Your task to perform on an android device: Search for logitech g pro on costco.com, select the first entry, and add it to the cart. Image 0: 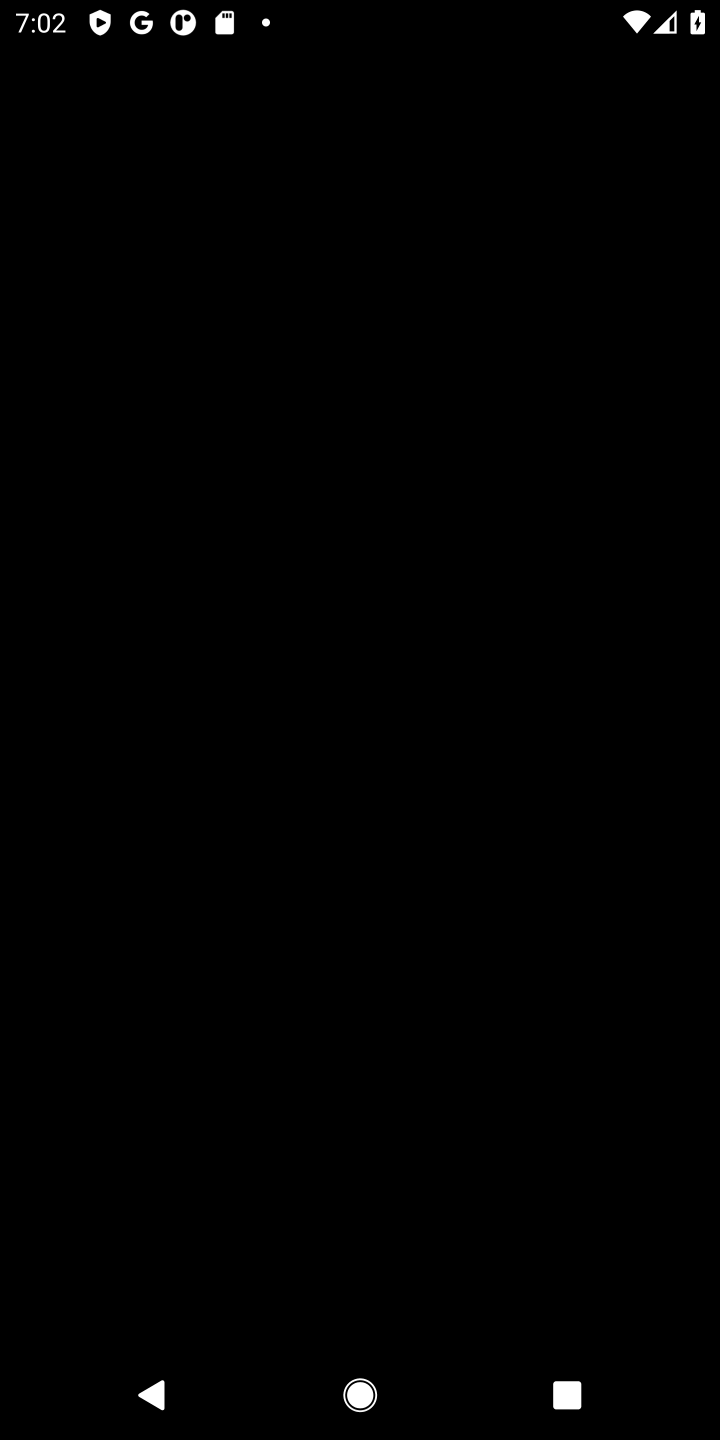
Step 0: press home button
Your task to perform on an android device: Search for logitech g pro on costco.com, select the first entry, and add it to the cart. Image 1: 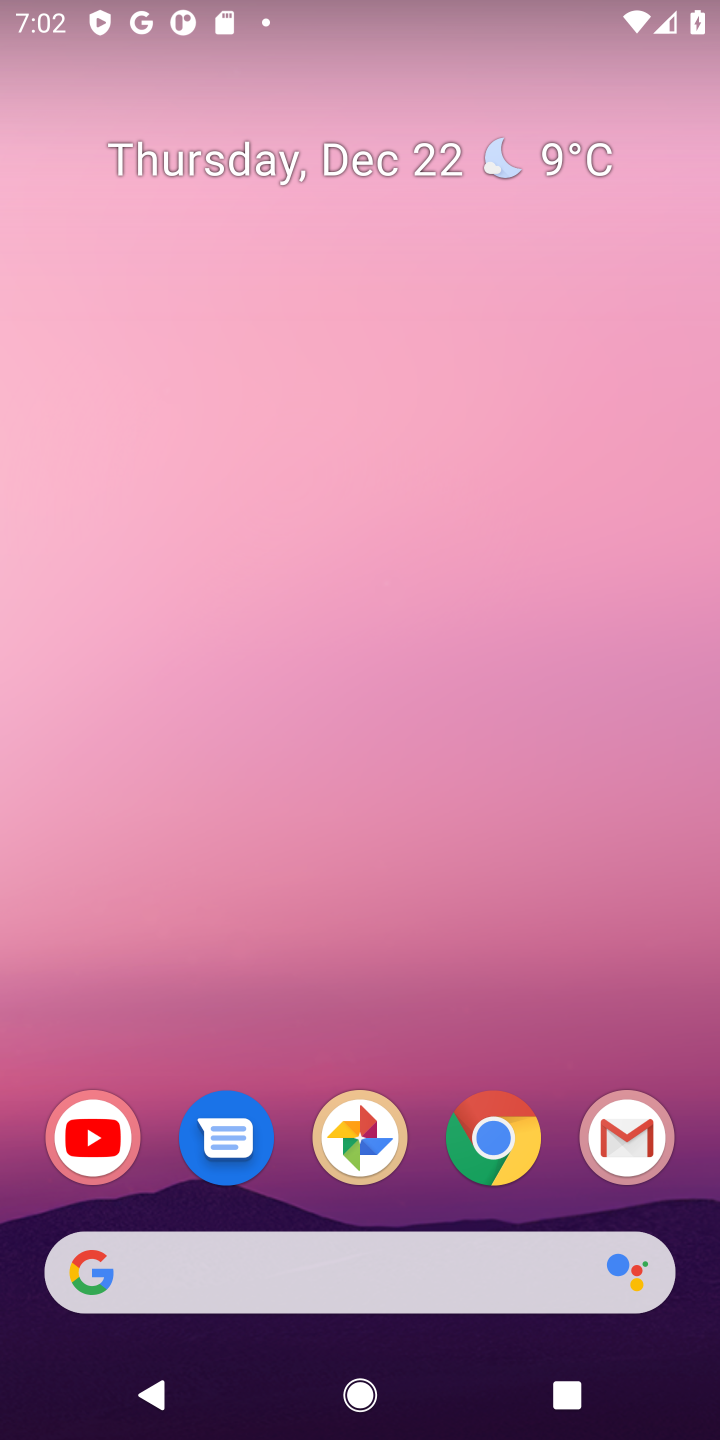
Step 1: click (495, 1134)
Your task to perform on an android device: Search for logitech g pro on costco.com, select the first entry, and add it to the cart. Image 2: 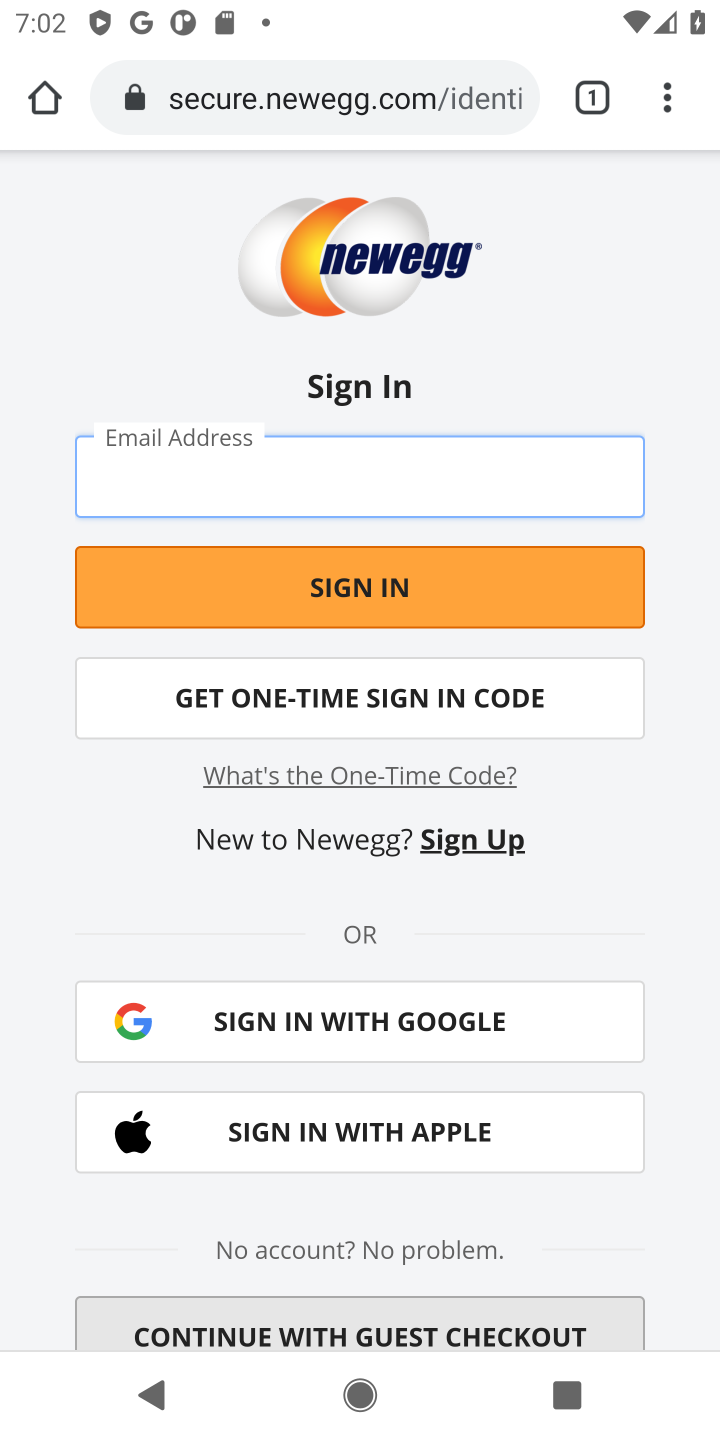
Step 2: click (423, 80)
Your task to perform on an android device: Search for logitech g pro on costco.com, select the first entry, and add it to the cart. Image 3: 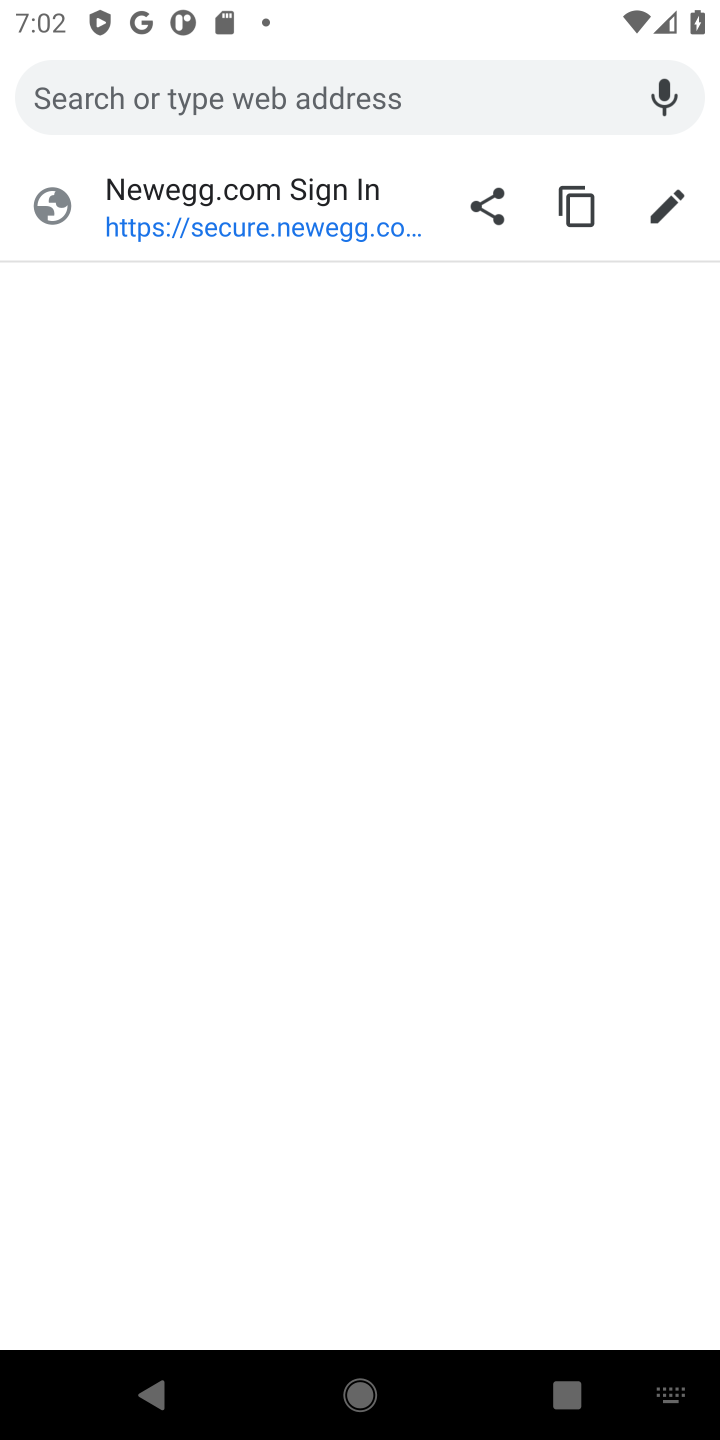
Step 3: press enter
Your task to perform on an android device: Search for logitech g pro on costco.com, select the first entry, and add it to the cart. Image 4: 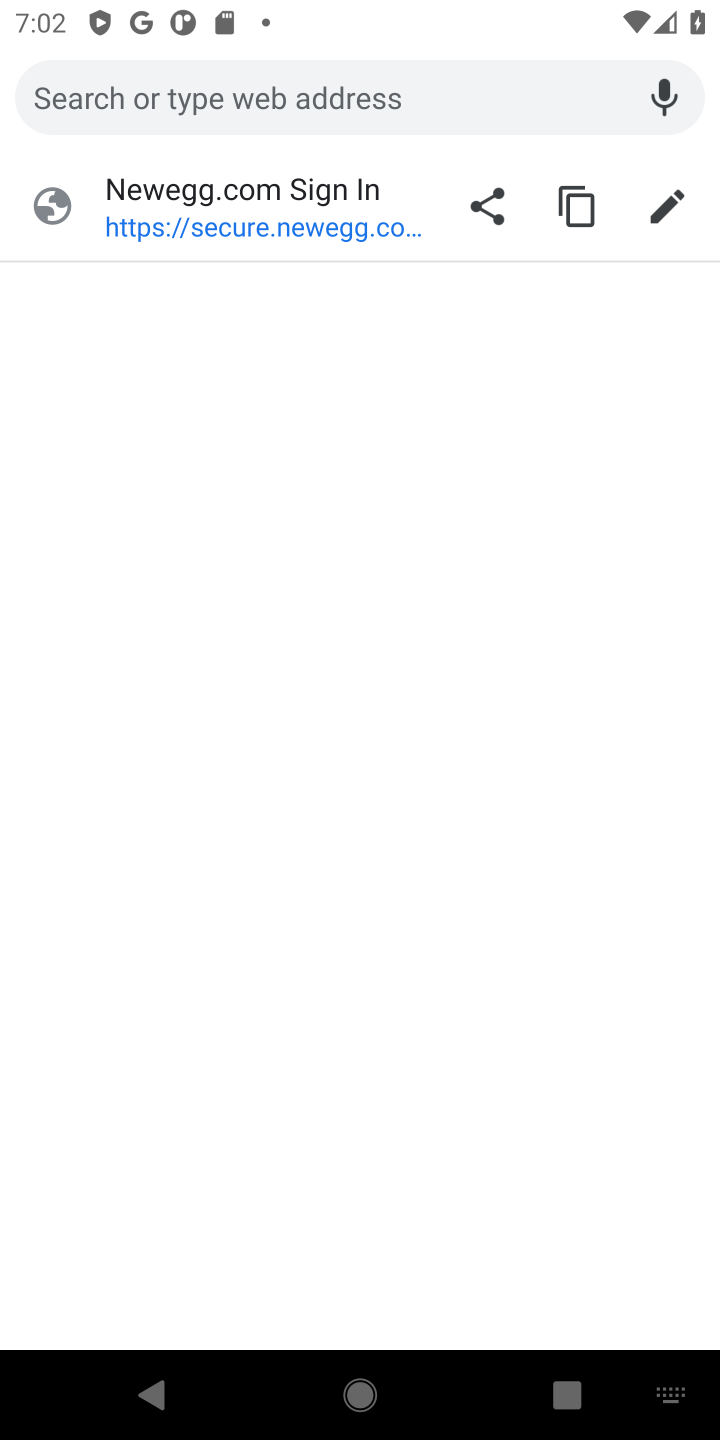
Step 4: type "costco.com"
Your task to perform on an android device: Search for logitech g pro on costco.com, select the first entry, and add it to the cart. Image 5: 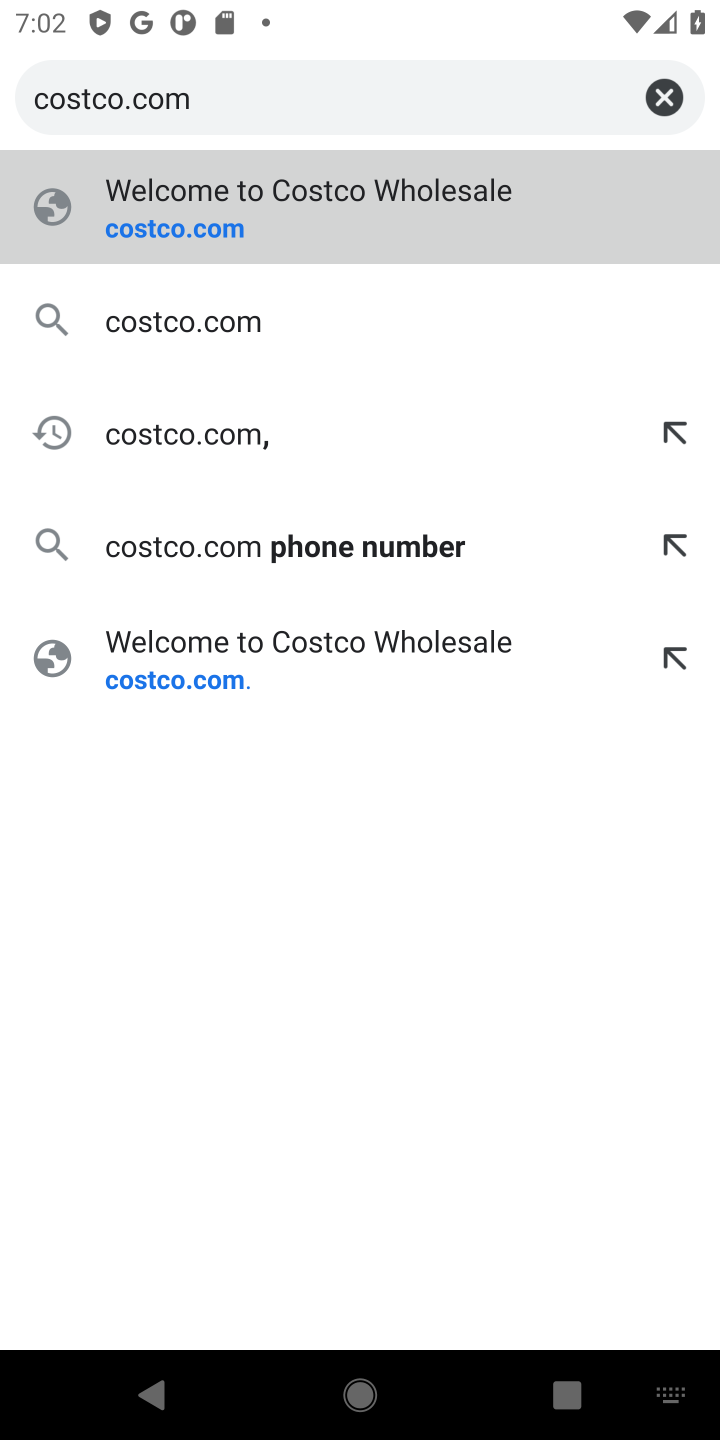
Step 5: click (232, 319)
Your task to perform on an android device: Search for logitech g pro on costco.com, select the first entry, and add it to the cart. Image 6: 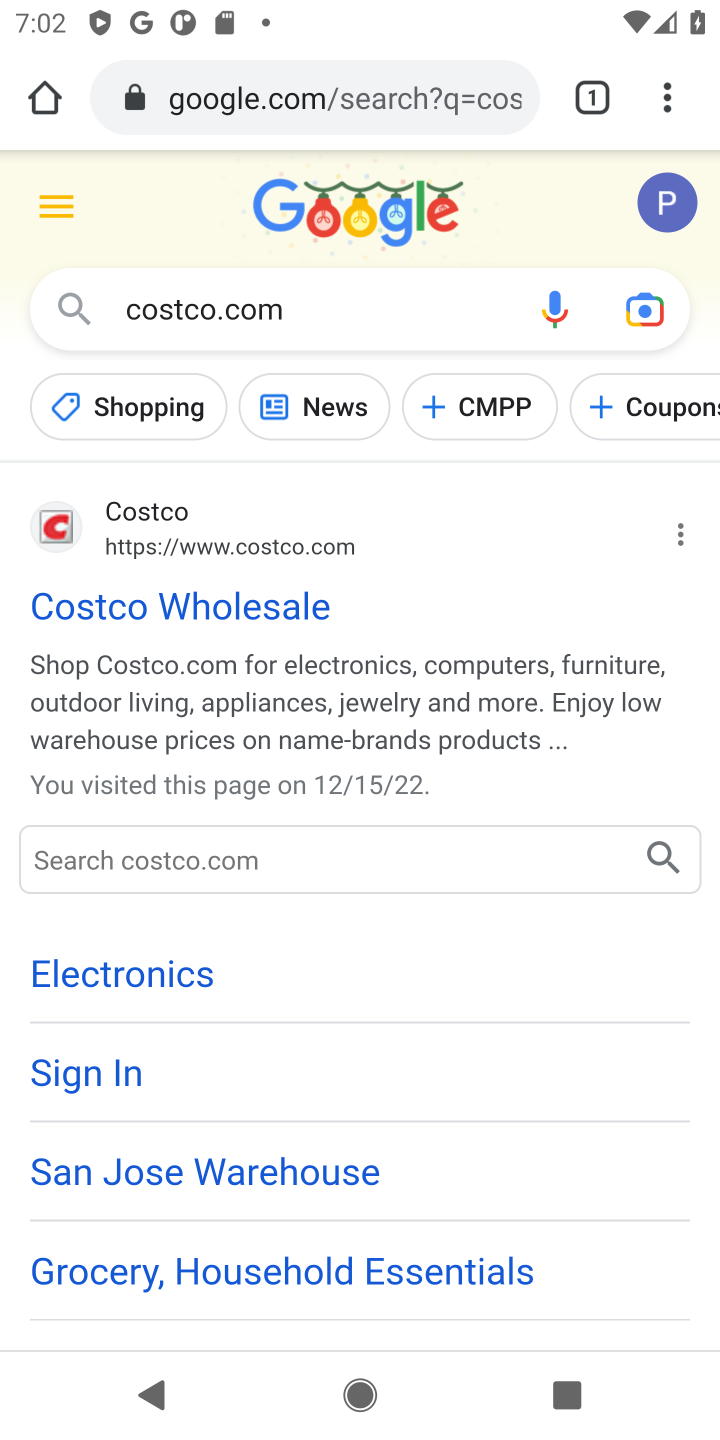
Step 6: click (297, 552)
Your task to perform on an android device: Search for logitech g pro on costco.com, select the first entry, and add it to the cart. Image 7: 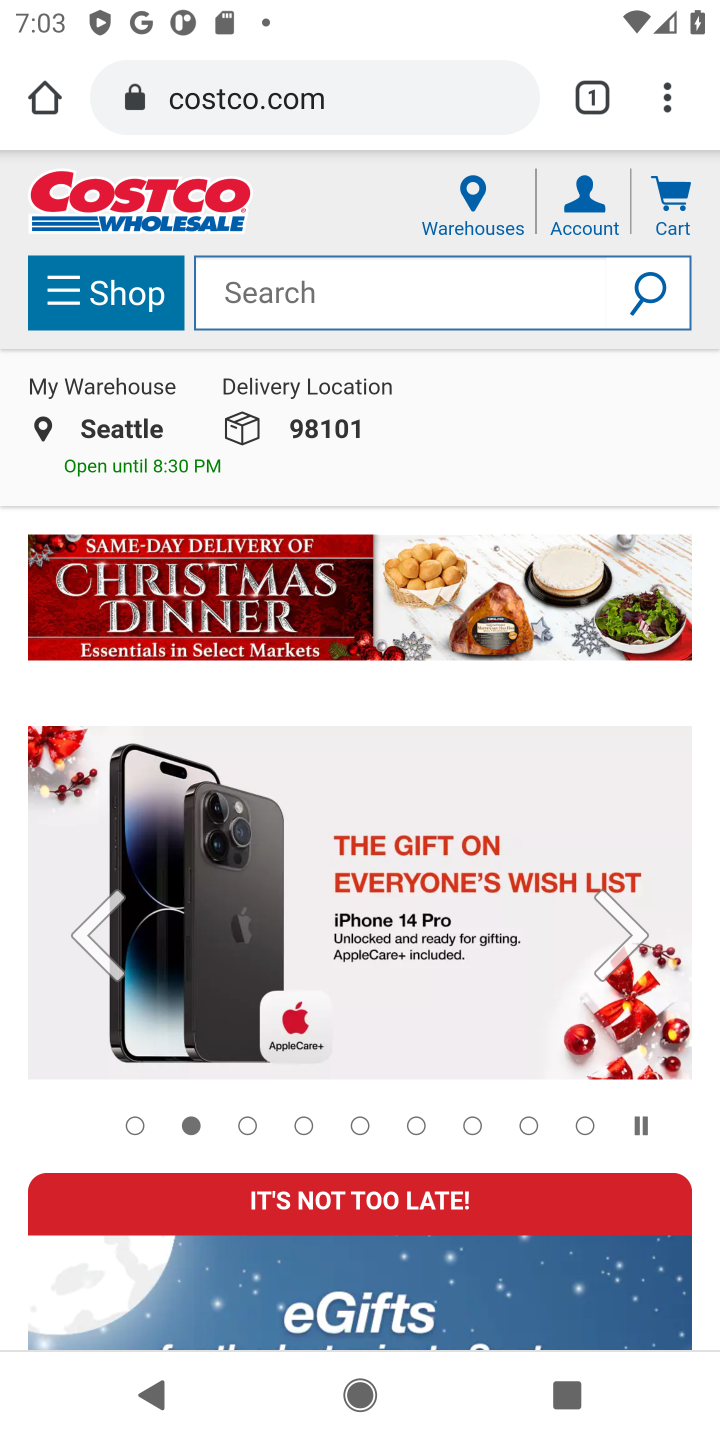
Step 7: click (524, 288)
Your task to perform on an android device: Search for logitech g pro on costco.com, select the first entry, and add it to the cart. Image 8: 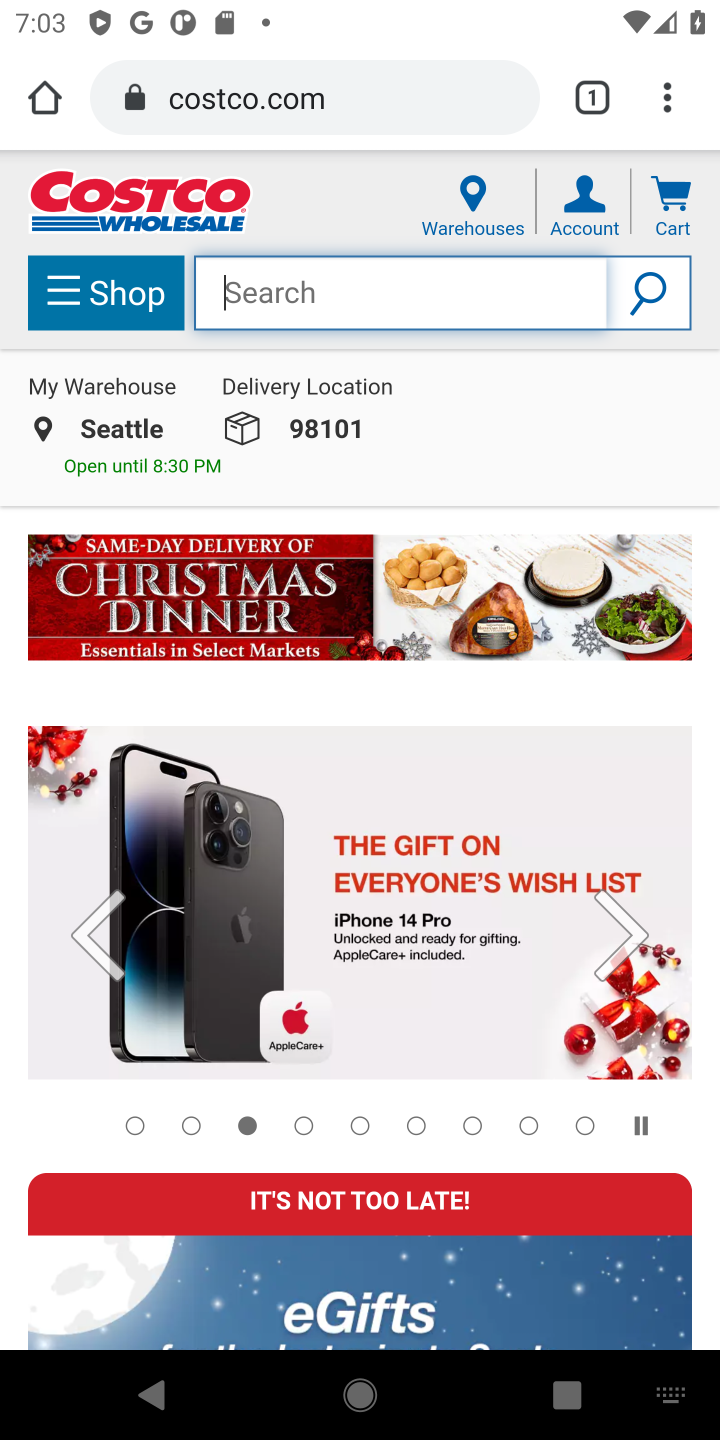
Step 8: type "logitech g pro"
Your task to perform on an android device: Search for logitech g pro on costco.com, select the first entry, and add it to the cart. Image 9: 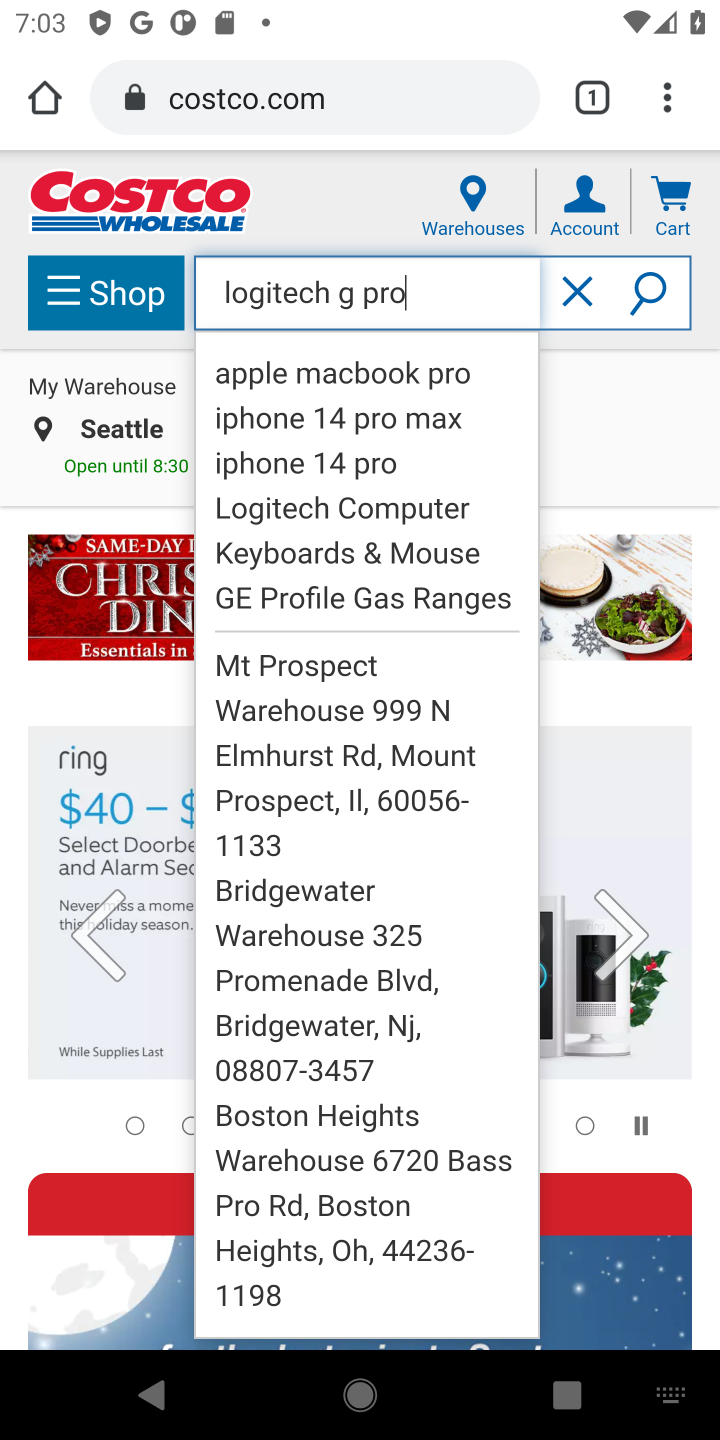
Step 9: click (662, 284)
Your task to perform on an android device: Search for logitech g pro on costco.com, select the first entry, and add it to the cart. Image 10: 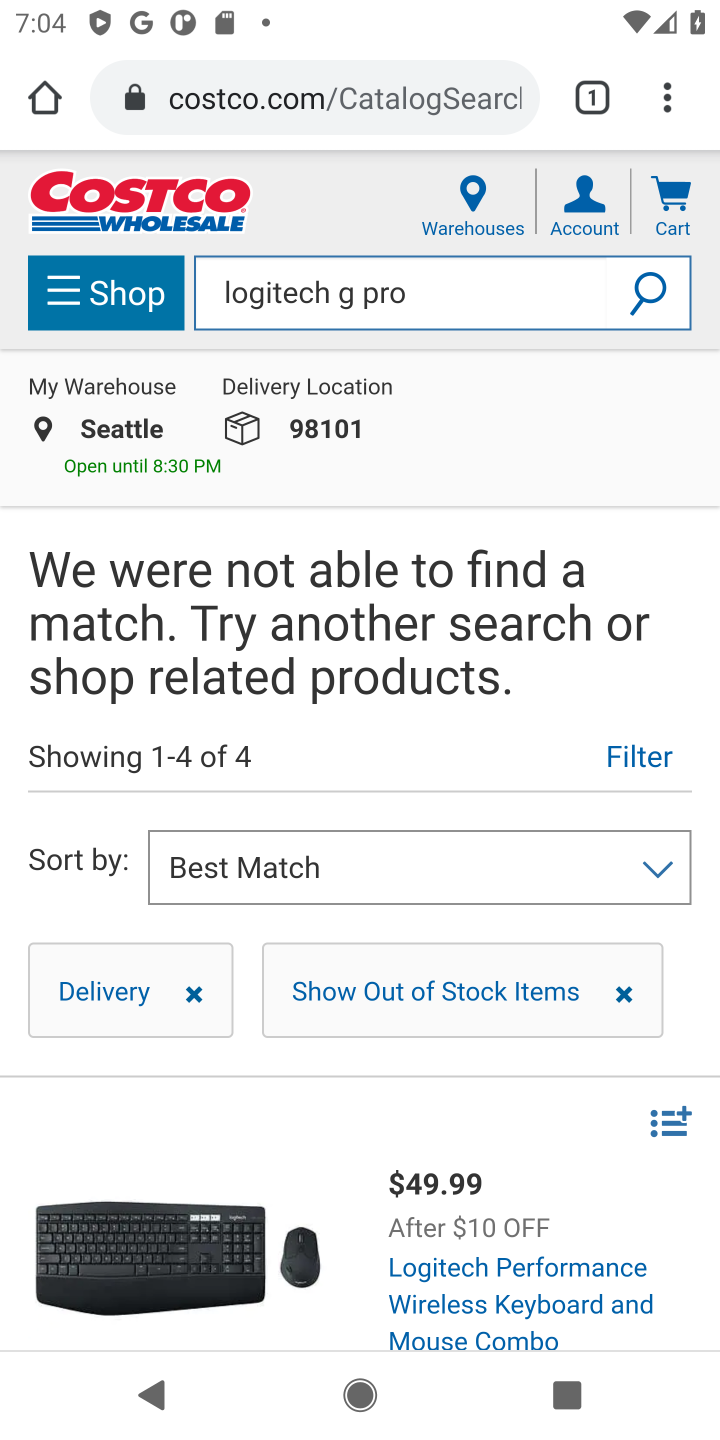
Step 10: task complete